Your task to perform on an android device: open chrome privacy settings Image 0: 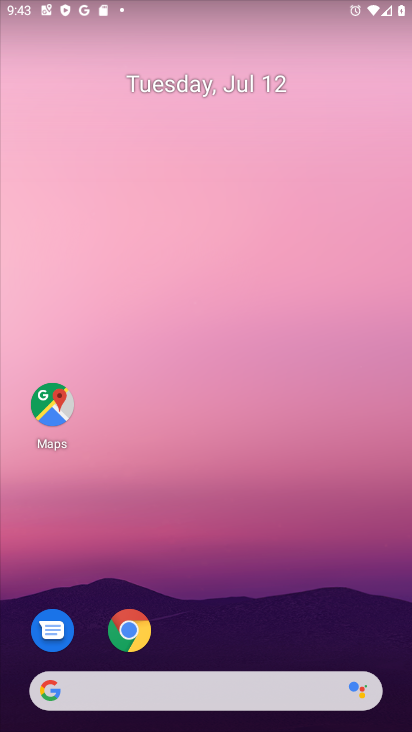
Step 0: click (128, 627)
Your task to perform on an android device: open chrome privacy settings Image 1: 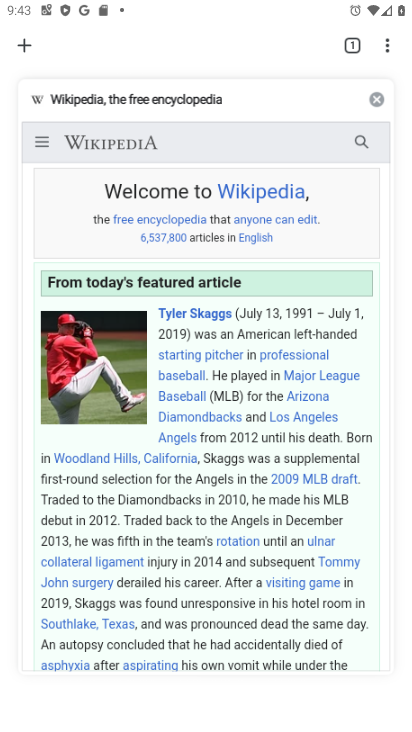
Step 1: click (384, 52)
Your task to perform on an android device: open chrome privacy settings Image 2: 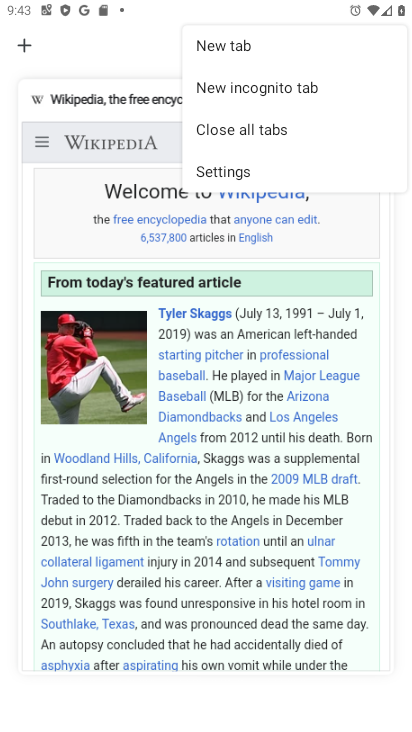
Step 2: click (259, 167)
Your task to perform on an android device: open chrome privacy settings Image 3: 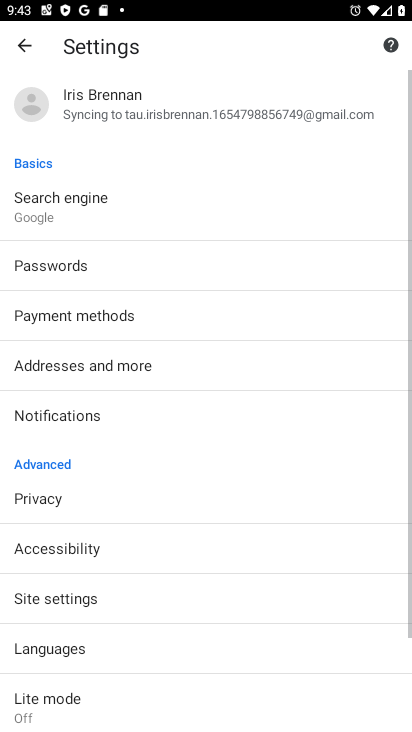
Step 3: click (66, 498)
Your task to perform on an android device: open chrome privacy settings Image 4: 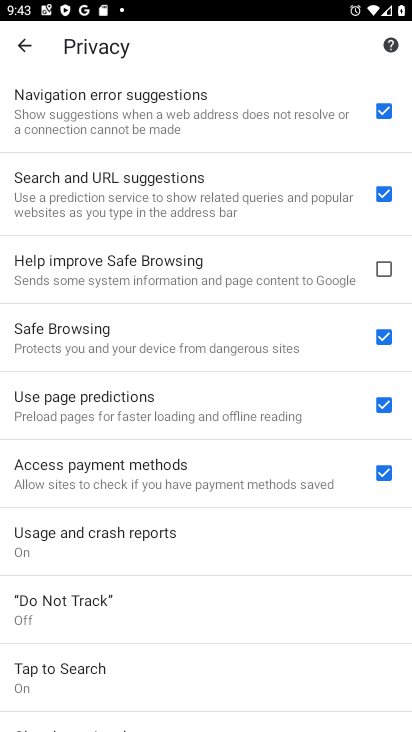
Step 4: task complete